Your task to perform on an android device: turn on wifi Image 0: 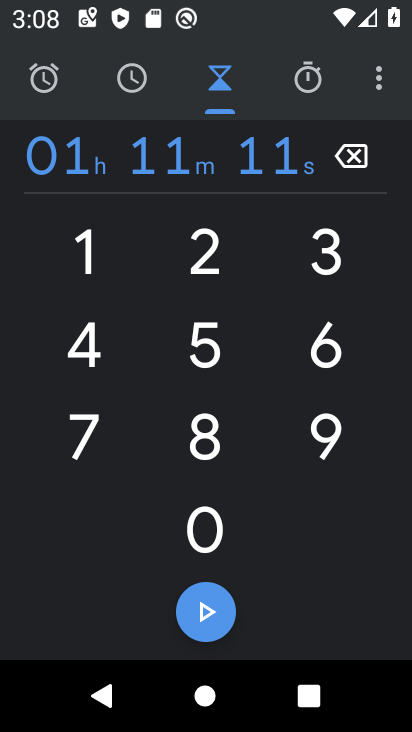
Step 0: press home button
Your task to perform on an android device: turn on wifi Image 1: 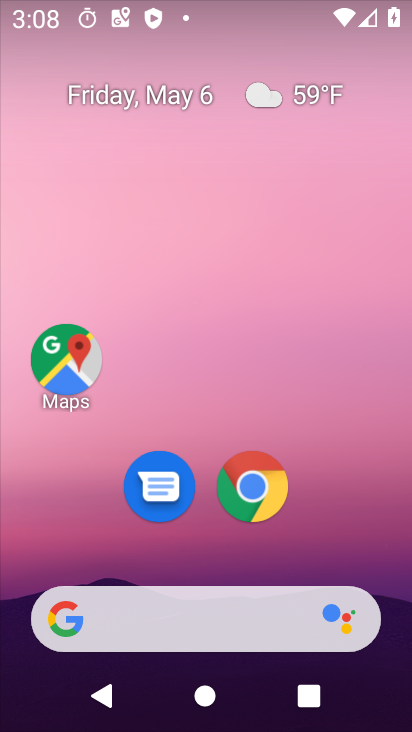
Step 1: drag from (316, 520) to (242, 144)
Your task to perform on an android device: turn on wifi Image 2: 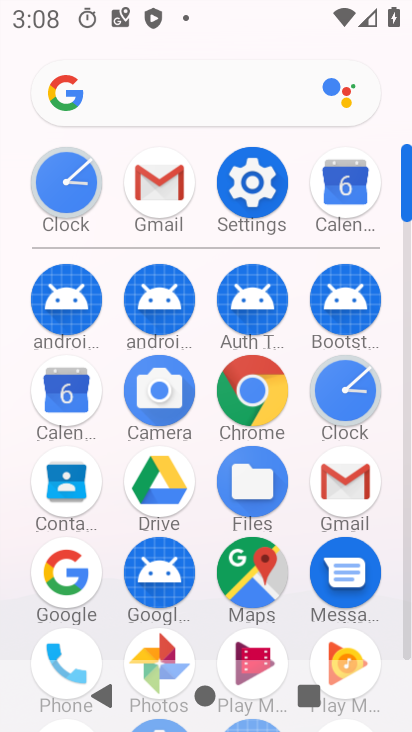
Step 2: click (236, 182)
Your task to perform on an android device: turn on wifi Image 3: 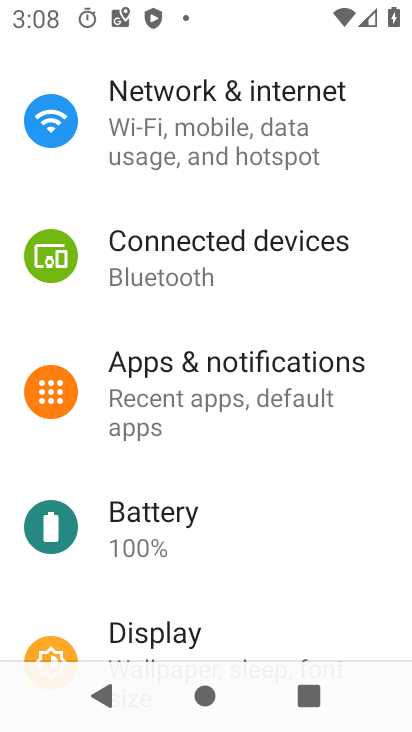
Step 3: drag from (245, 216) to (329, 560)
Your task to perform on an android device: turn on wifi Image 4: 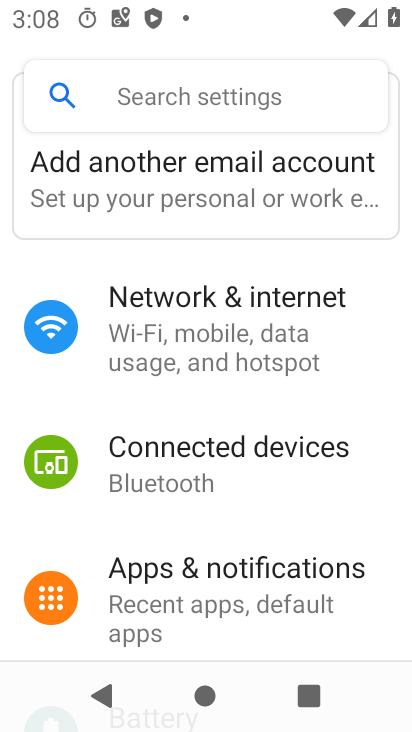
Step 4: click (198, 307)
Your task to perform on an android device: turn on wifi Image 5: 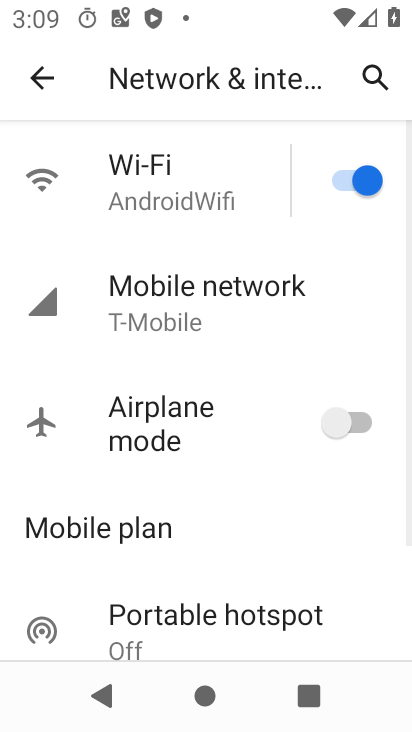
Step 5: click (158, 172)
Your task to perform on an android device: turn on wifi Image 6: 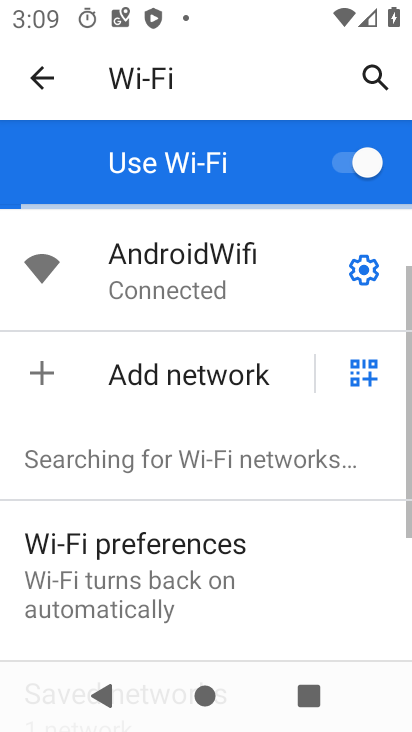
Step 6: task complete